Your task to perform on an android device: What's on my calendar today? Image 0: 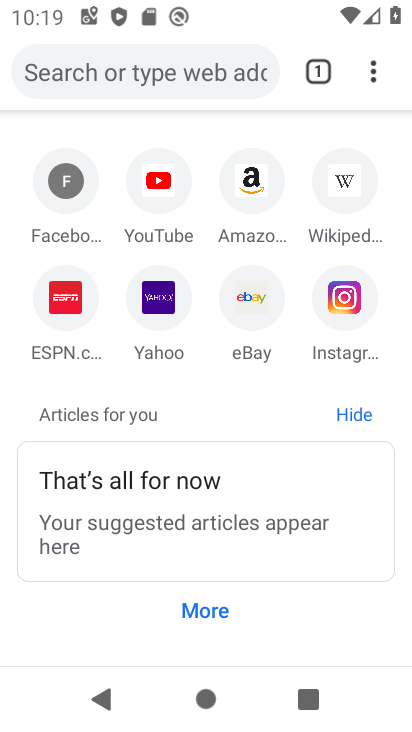
Step 0: press home button
Your task to perform on an android device: What's on my calendar today? Image 1: 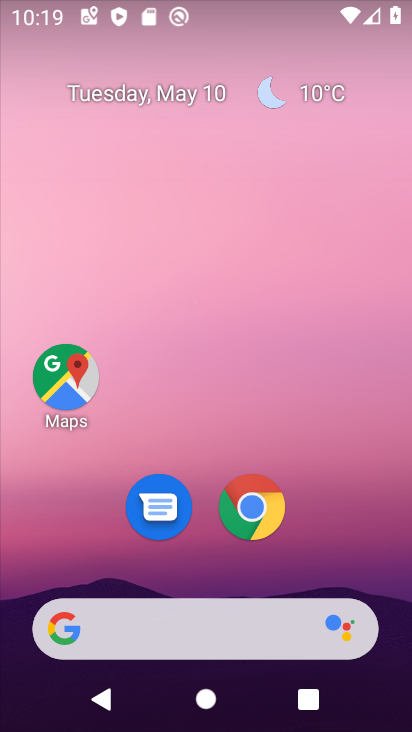
Step 1: drag from (339, 521) to (339, 86)
Your task to perform on an android device: What's on my calendar today? Image 2: 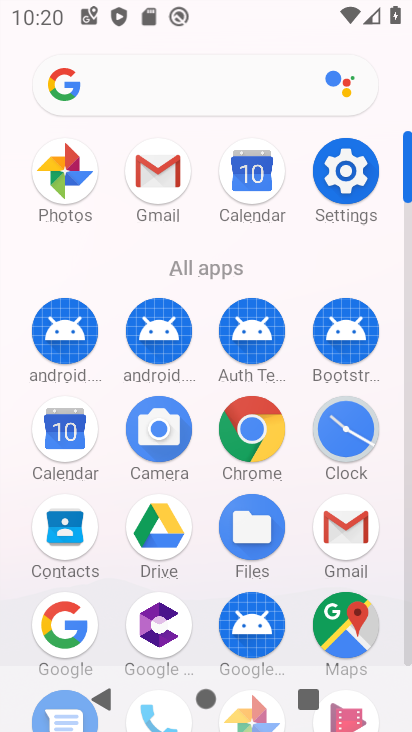
Step 2: click (263, 184)
Your task to perform on an android device: What's on my calendar today? Image 3: 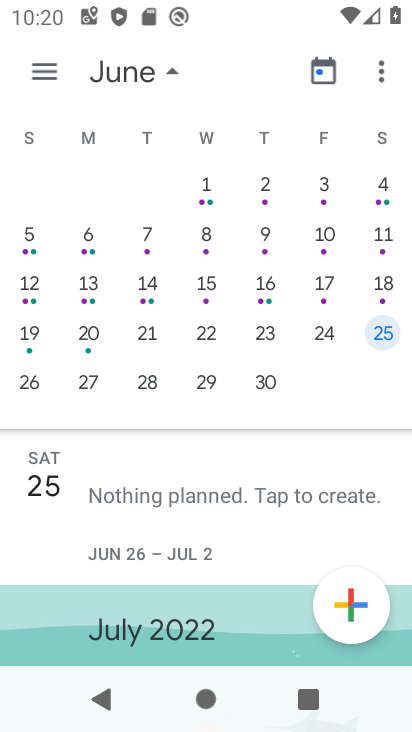
Step 3: drag from (98, 328) to (325, 325)
Your task to perform on an android device: What's on my calendar today? Image 4: 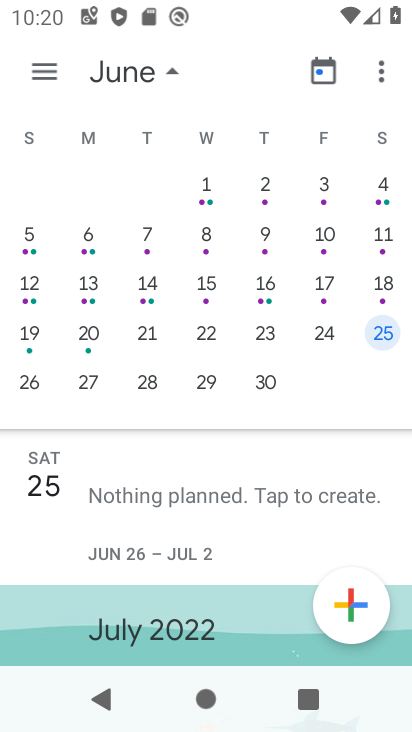
Step 4: drag from (80, 335) to (371, 334)
Your task to perform on an android device: What's on my calendar today? Image 5: 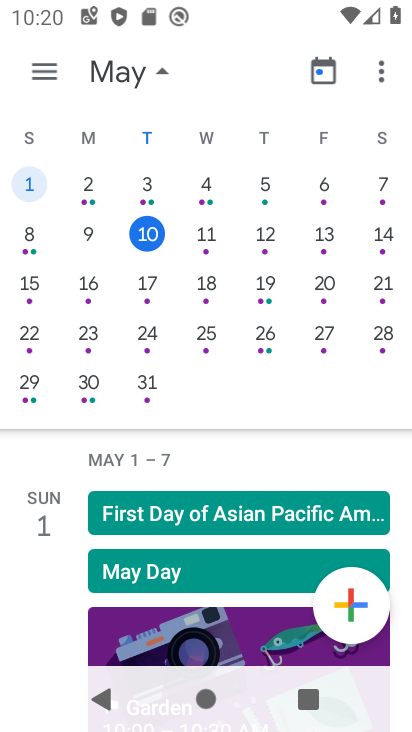
Step 5: click (154, 239)
Your task to perform on an android device: What's on my calendar today? Image 6: 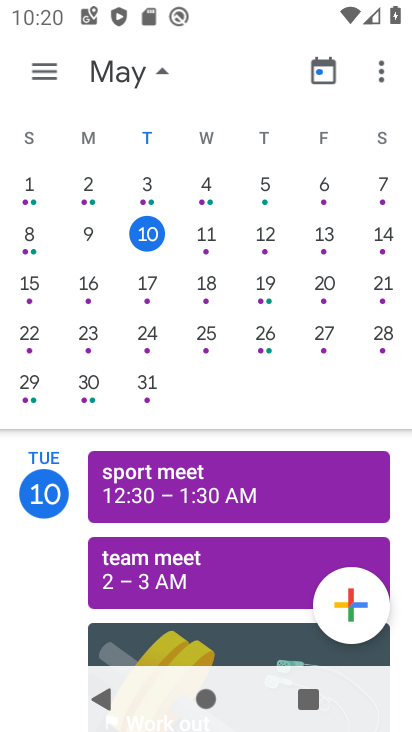
Step 6: task complete